Your task to perform on an android device: change text size in settings app Image 0: 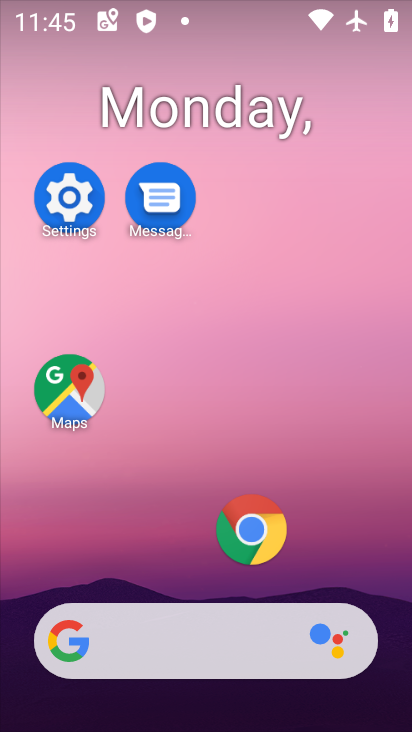
Step 0: drag from (206, 462) to (333, 134)
Your task to perform on an android device: change text size in settings app Image 1: 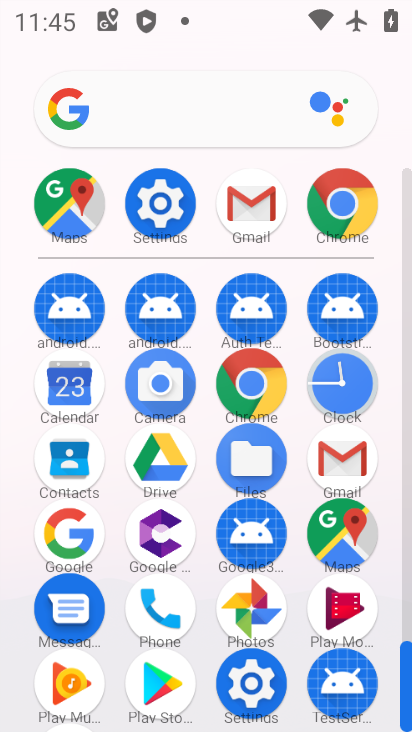
Step 1: click (252, 687)
Your task to perform on an android device: change text size in settings app Image 2: 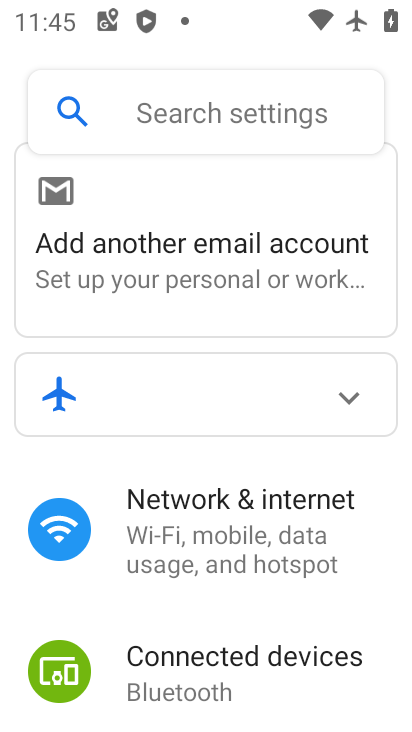
Step 2: drag from (138, 682) to (216, 338)
Your task to perform on an android device: change text size in settings app Image 3: 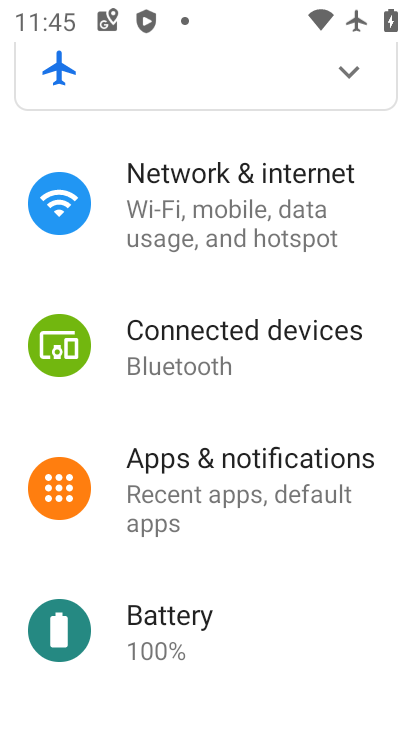
Step 3: drag from (219, 647) to (269, 301)
Your task to perform on an android device: change text size in settings app Image 4: 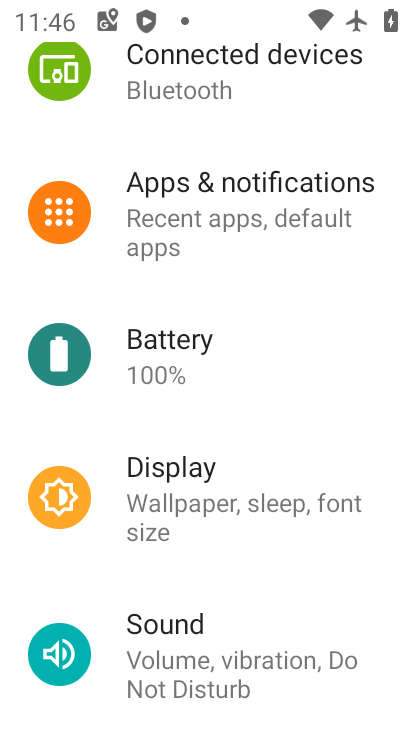
Step 4: click (227, 569)
Your task to perform on an android device: change text size in settings app Image 5: 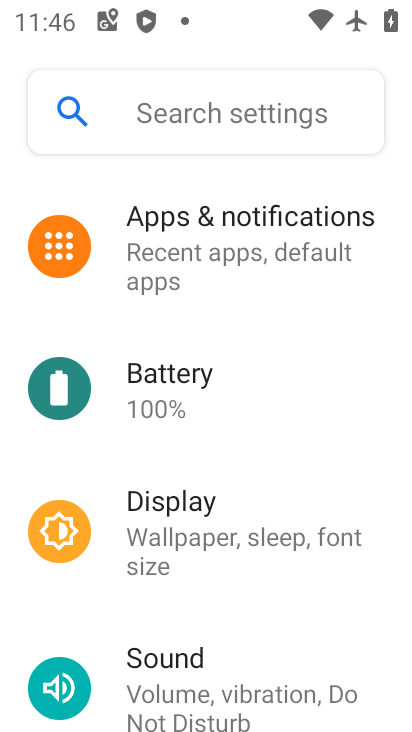
Step 5: click (236, 564)
Your task to perform on an android device: change text size in settings app Image 6: 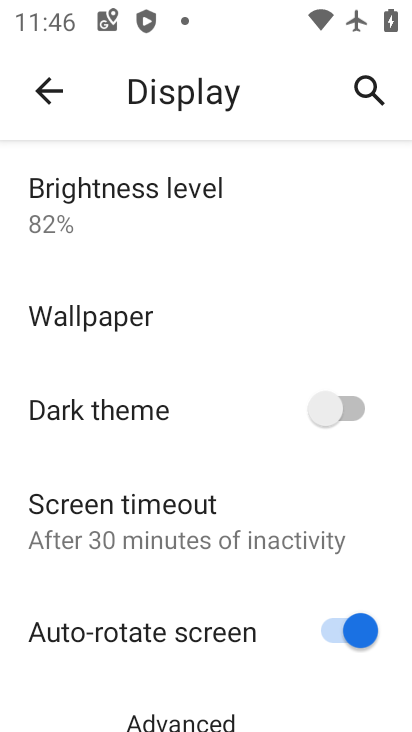
Step 6: click (257, 147)
Your task to perform on an android device: change text size in settings app Image 7: 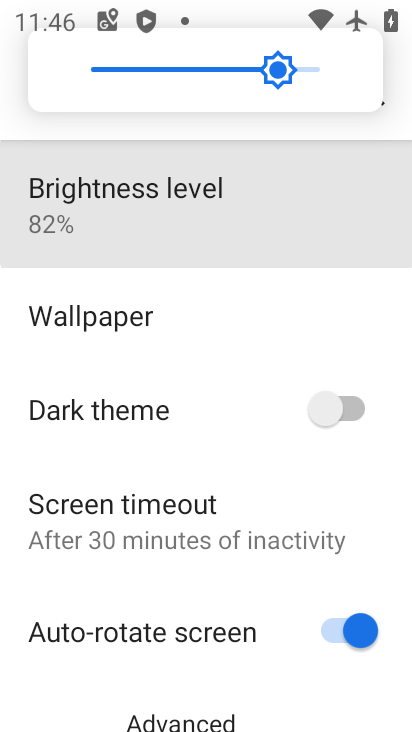
Step 7: drag from (200, 687) to (268, 160)
Your task to perform on an android device: change text size in settings app Image 8: 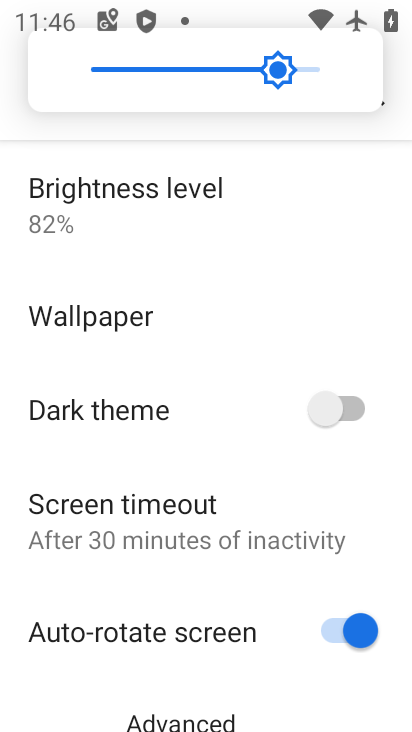
Step 8: click (211, 724)
Your task to perform on an android device: change text size in settings app Image 9: 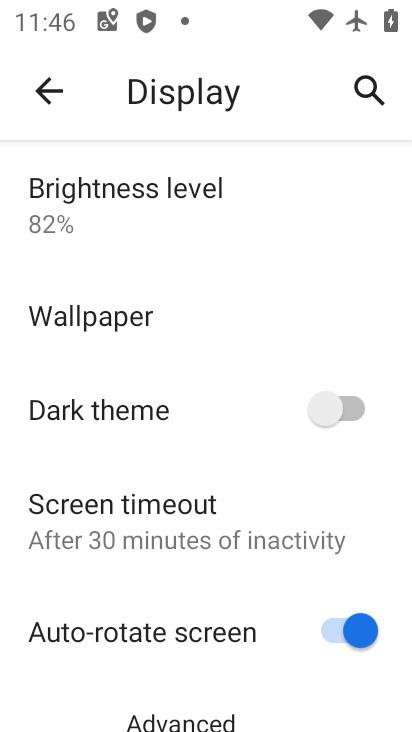
Step 9: drag from (212, 720) to (257, 326)
Your task to perform on an android device: change text size in settings app Image 10: 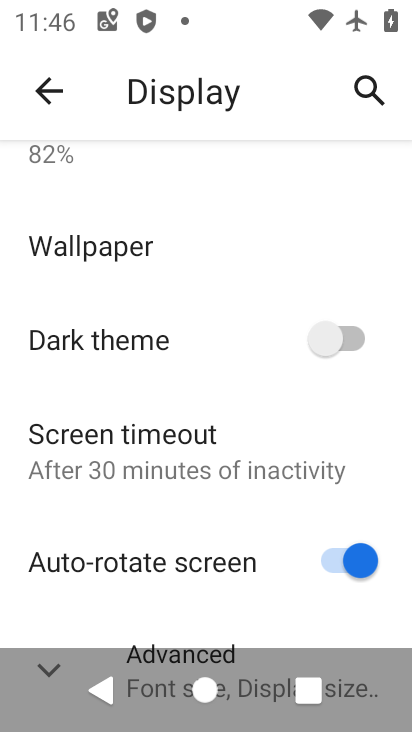
Step 10: drag from (202, 613) to (233, 361)
Your task to perform on an android device: change text size in settings app Image 11: 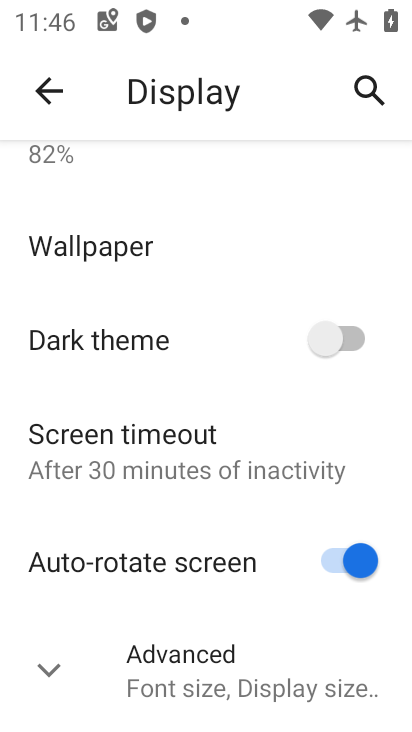
Step 11: click (154, 667)
Your task to perform on an android device: change text size in settings app Image 12: 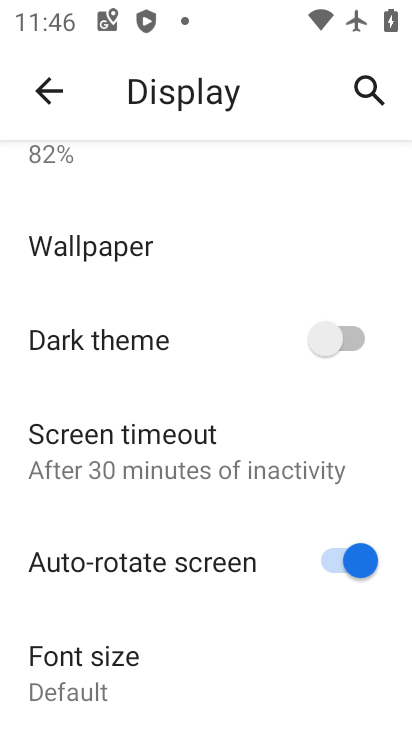
Step 12: drag from (155, 671) to (181, 473)
Your task to perform on an android device: change text size in settings app Image 13: 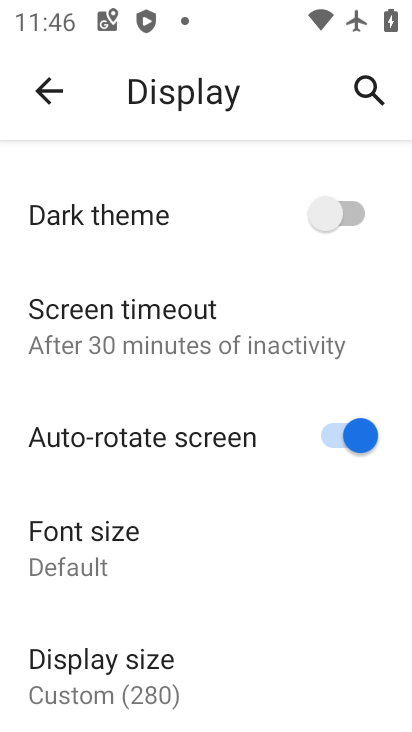
Step 13: click (124, 565)
Your task to perform on an android device: change text size in settings app Image 14: 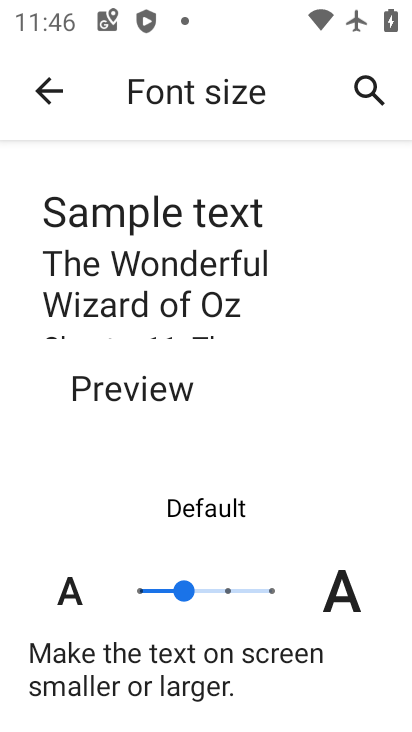
Step 14: click (131, 593)
Your task to perform on an android device: change text size in settings app Image 15: 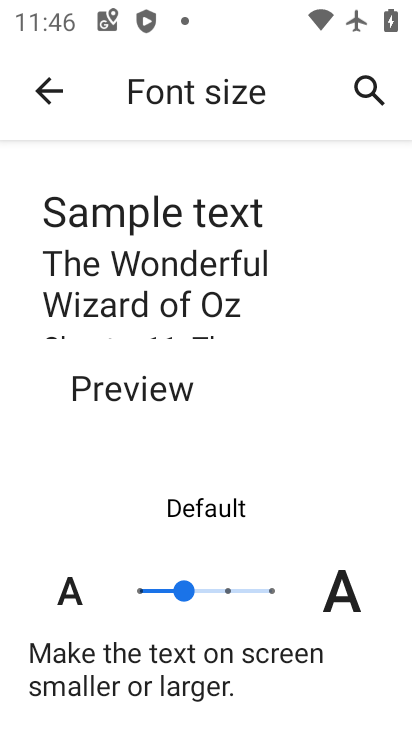
Step 15: click (138, 594)
Your task to perform on an android device: change text size in settings app Image 16: 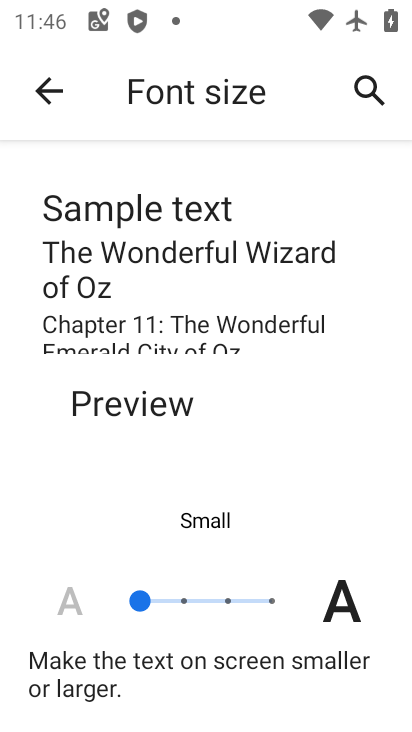
Step 16: task complete